Your task to perform on an android device: Go to accessibility settings Image 0: 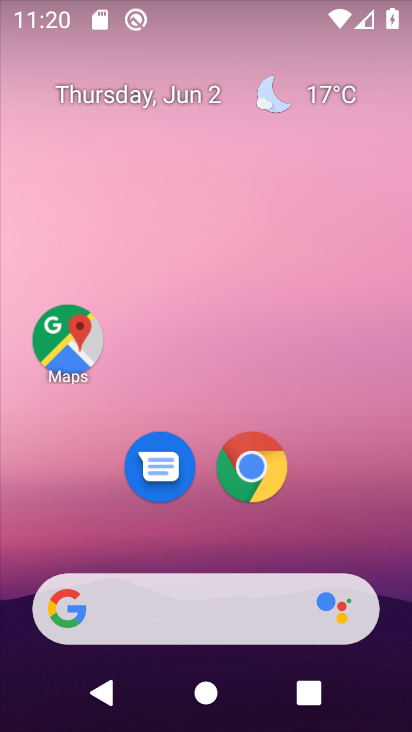
Step 0: drag from (281, 586) to (240, 249)
Your task to perform on an android device: Go to accessibility settings Image 1: 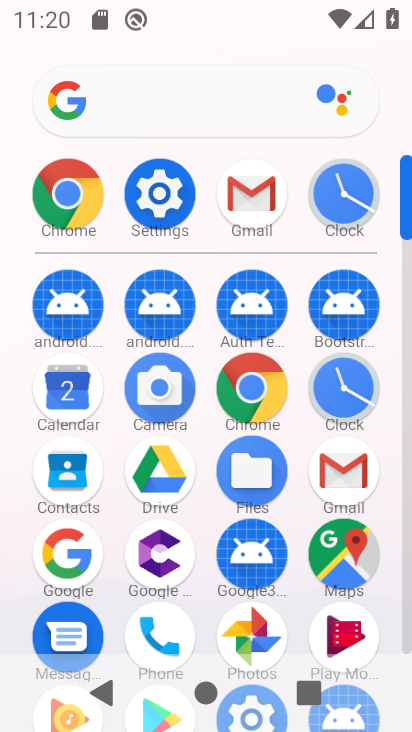
Step 1: click (164, 201)
Your task to perform on an android device: Go to accessibility settings Image 2: 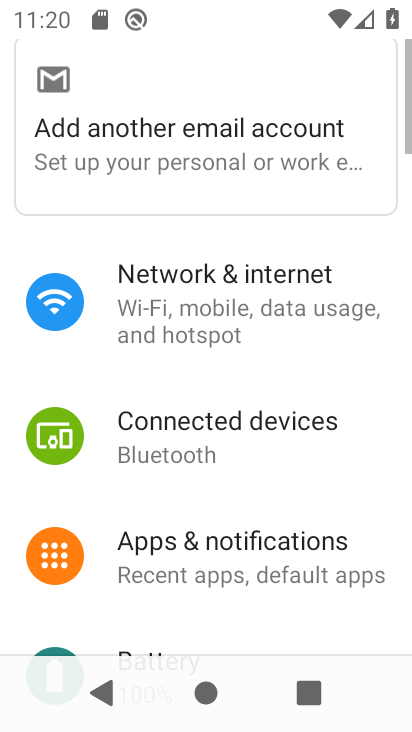
Step 2: drag from (182, 546) to (212, 213)
Your task to perform on an android device: Go to accessibility settings Image 3: 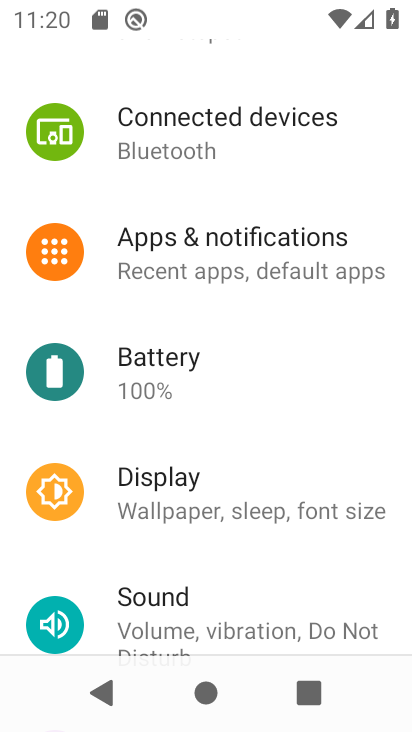
Step 3: drag from (156, 559) to (160, 188)
Your task to perform on an android device: Go to accessibility settings Image 4: 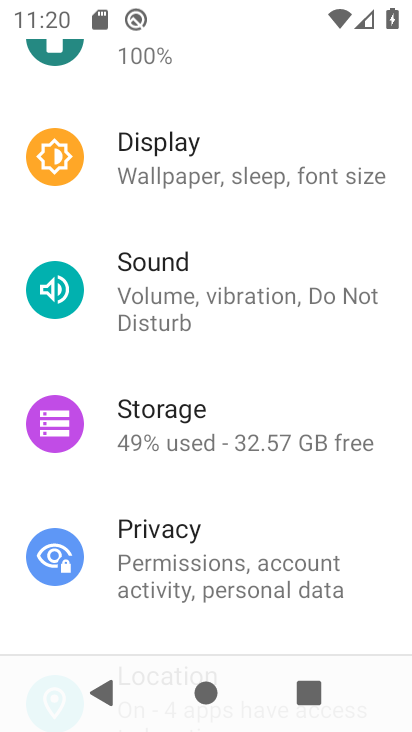
Step 4: drag from (112, 565) to (130, 240)
Your task to perform on an android device: Go to accessibility settings Image 5: 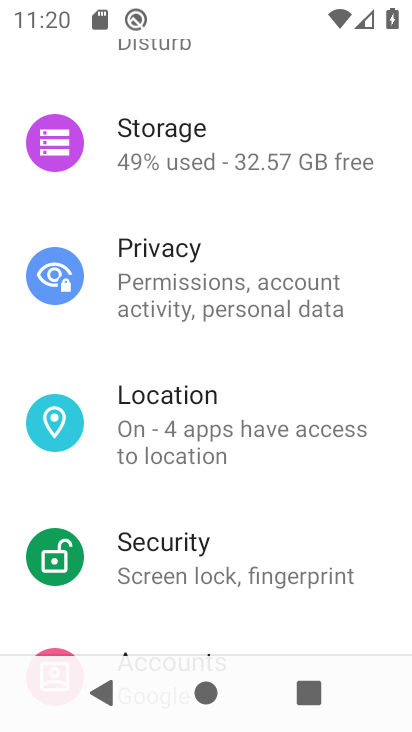
Step 5: drag from (149, 540) to (161, 242)
Your task to perform on an android device: Go to accessibility settings Image 6: 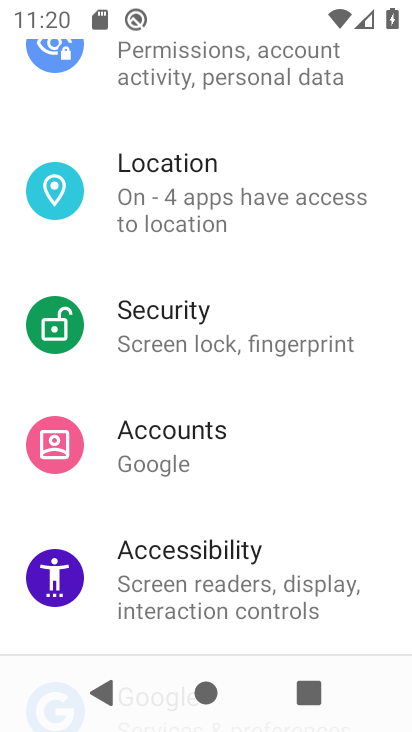
Step 6: click (127, 590)
Your task to perform on an android device: Go to accessibility settings Image 7: 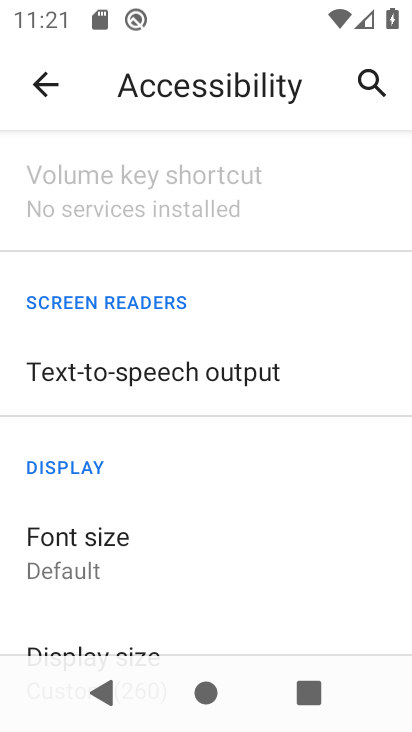
Step 7: task complete